Your task to perform on an android device: show emergency info Image 0: 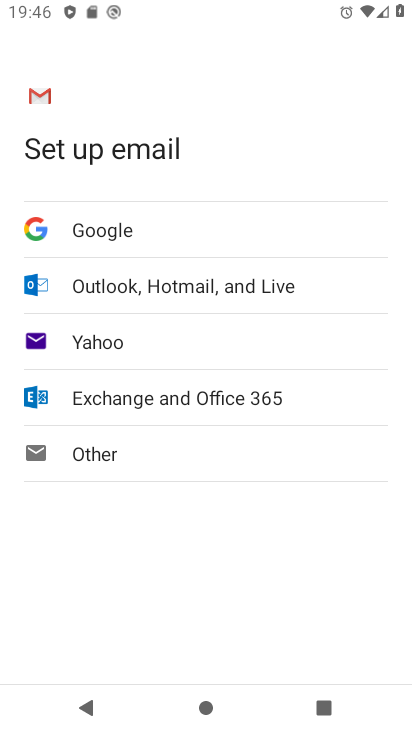
Step 0: press home button
Your task to perform on an android device: show emergency info Image 1: 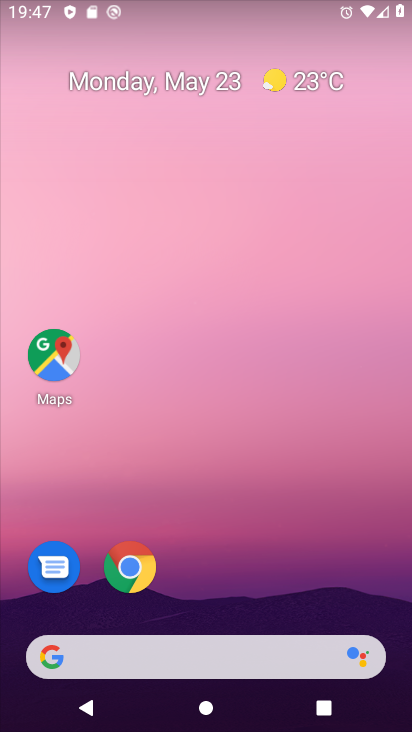
Step 1: drag from (271, 598) to (285, 299)
Your task to perform on an android device: show emergency info Image 2: 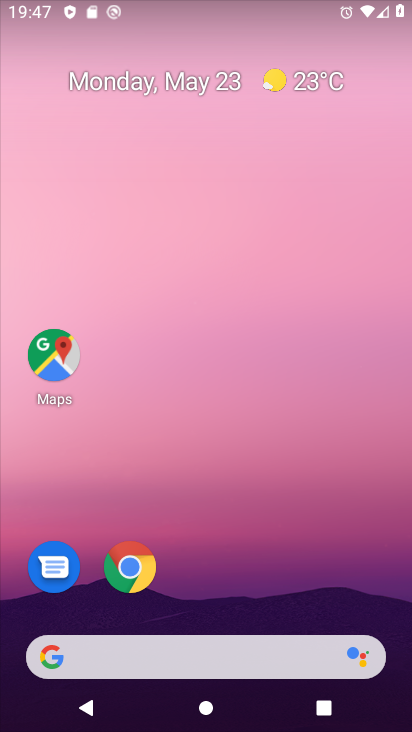
Step 2: drag from (230, 582) to (263, 184)
Your task to perform on an android device: show emergency info Image 3: 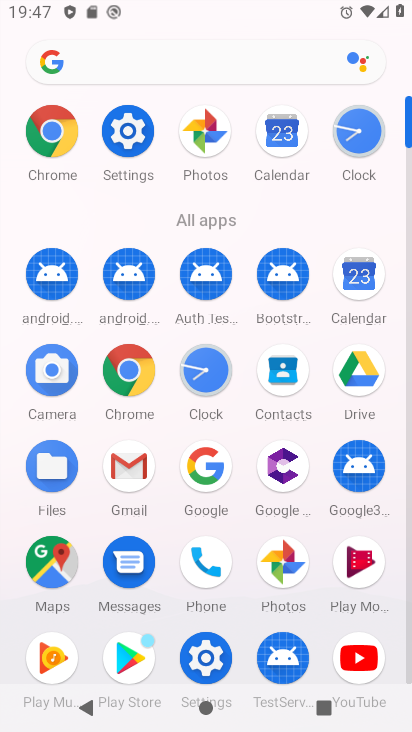
Step 3: click (131, 134)
Your task to perform on an android device: show emergency info Image 4: 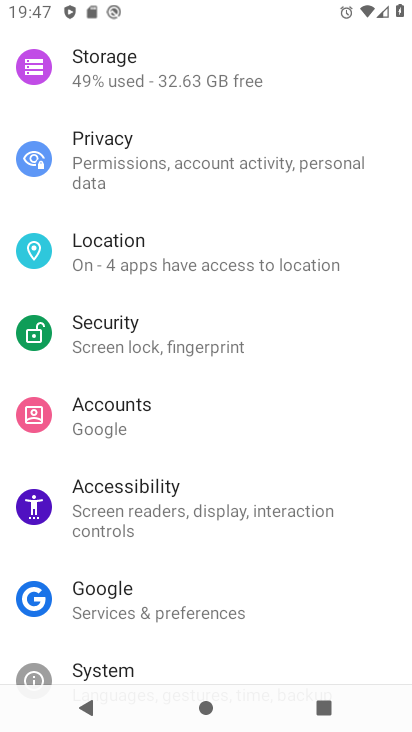
Step 4: drag from (256, 624) to (277, 122)
Your task to perform on an android device: show emergency info Image 5: 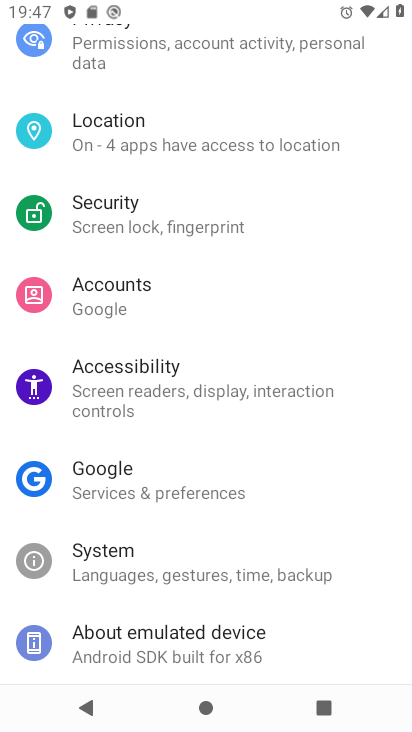
Step 5: click (185, 651)
Your task to perform on an android device: show emergency info Image 6: 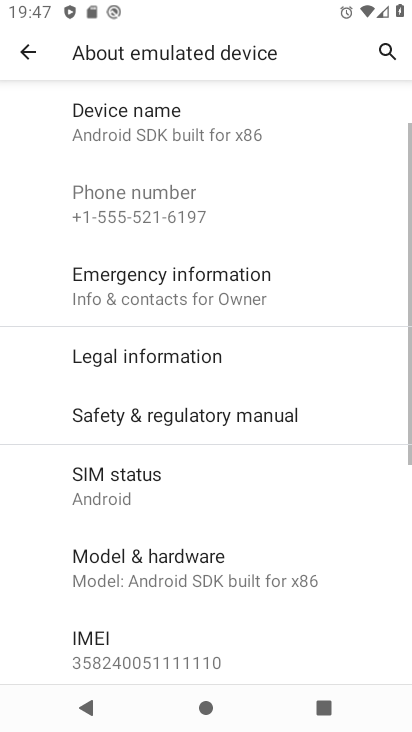
Step 6: click (183, 274)
Your task to perform on an android device: show emergency info Image 7: 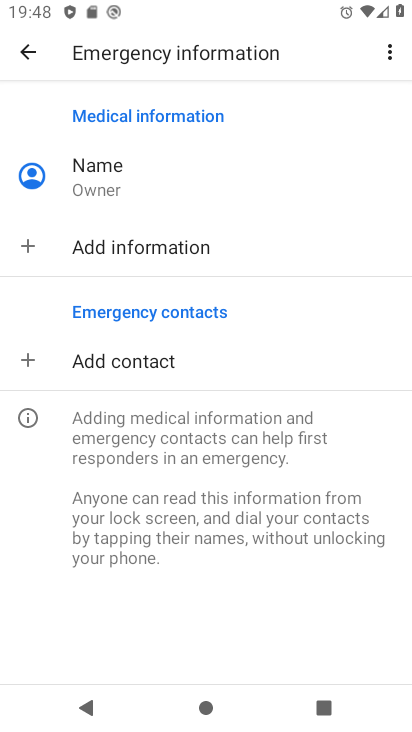
Step 7: task complete